Your task to perform on an android device: Open the calendar and show me this week's events Image 0: 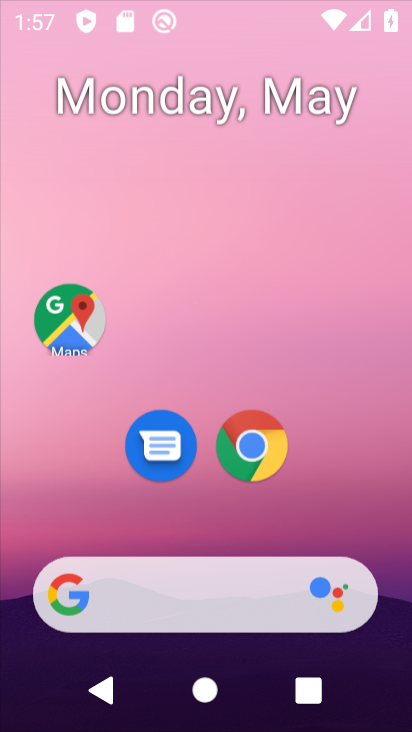
Step 0: press home button
Your task to perform on an android device: Open the calendar and show me this week's events Image 1: 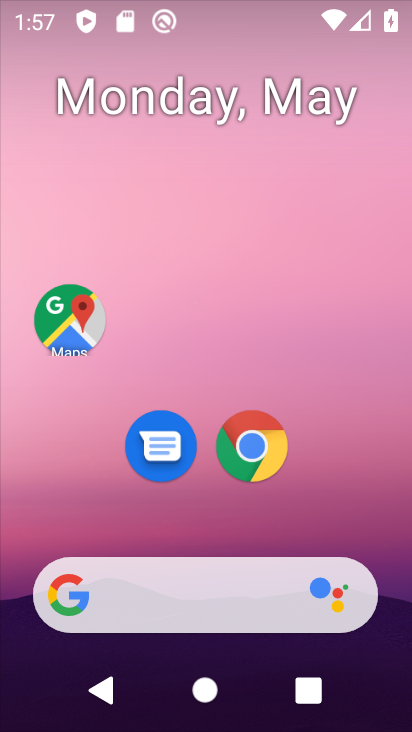
Step 1: drag from (387, 506) to (368, 154)
Your task to perform on an android device: Open the calendar and show me this week's events Image 2: 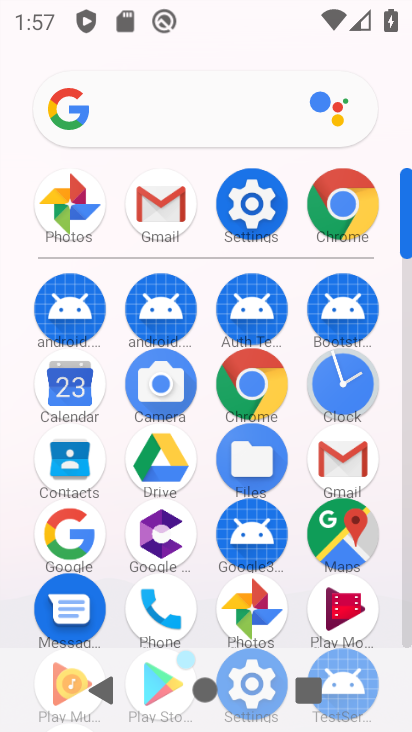
Step 2: click (81, 406)
Your task to perform on an android device: Open the calendar and show me this week's events Image 3: 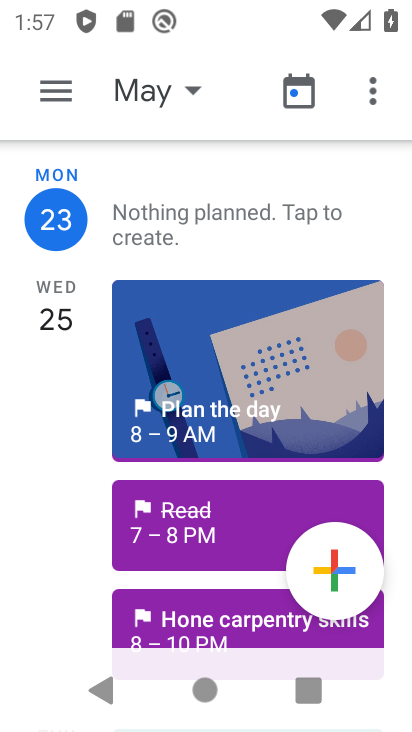
Step 3: click (131, 102)
Your task to perform on an android device: Open the calendar and show me this week's events Image 4: 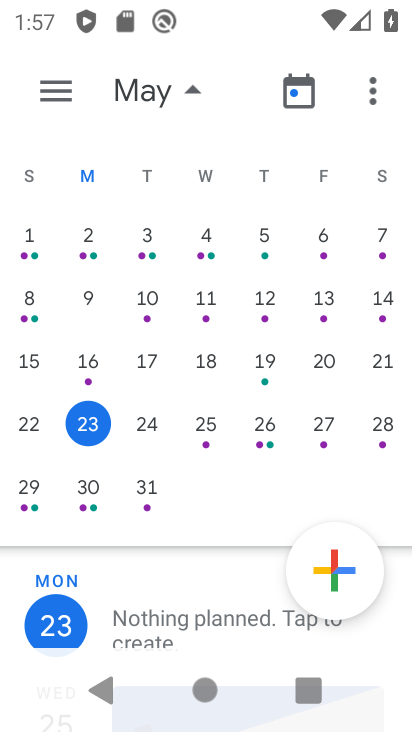
Step 4: drag from (351, 328) to (4, 313)
Your task to perform on an android device: Open the calendar and show me this week's events Image 5: 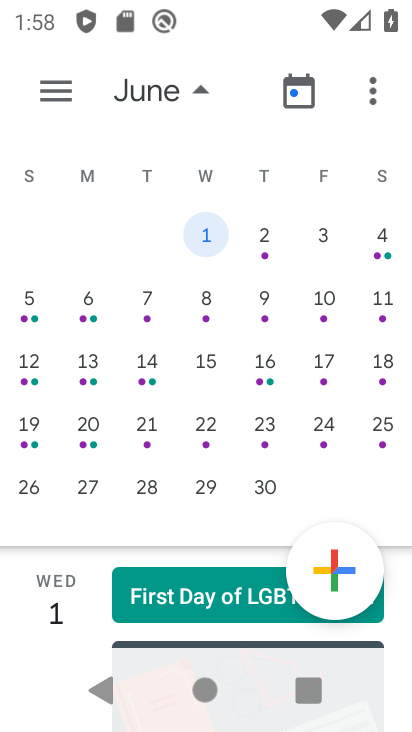
Step 5: drag from (114, 348) to (411, 375)
Your task to perform on an android device: Open the calendar and show me this week's events Image 6: 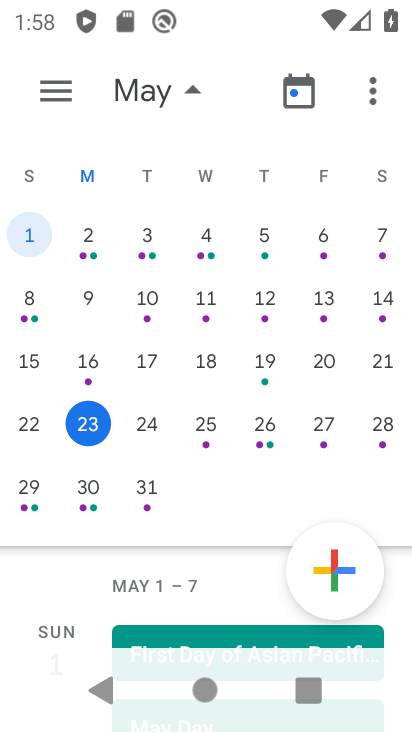
Step 6: click (90, 434)
Your task to perform on an android device: Open the calendar and show me this week's events Image 7: 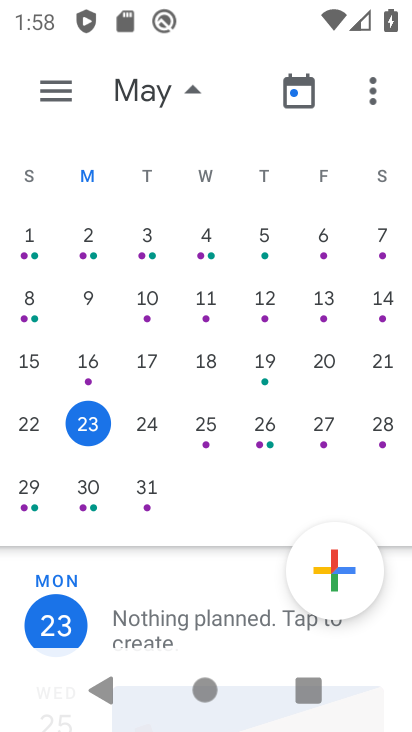
Step 7: task complete